Your task to perform on an android device: Go to internet settings Image 0: 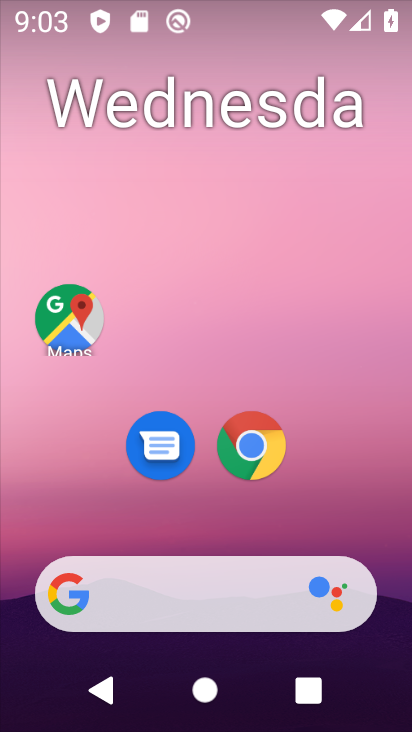
Step 0: drag from (225, 419) to (314, 41)
Your task to perform on an android device: Go to internet settings Image 1: 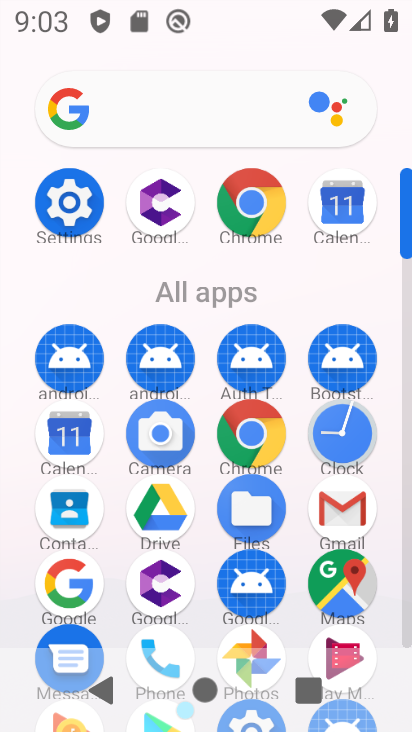
Step 1: click (79, 196)
Your task to perform on an android device: Go to internet settings Image 2: 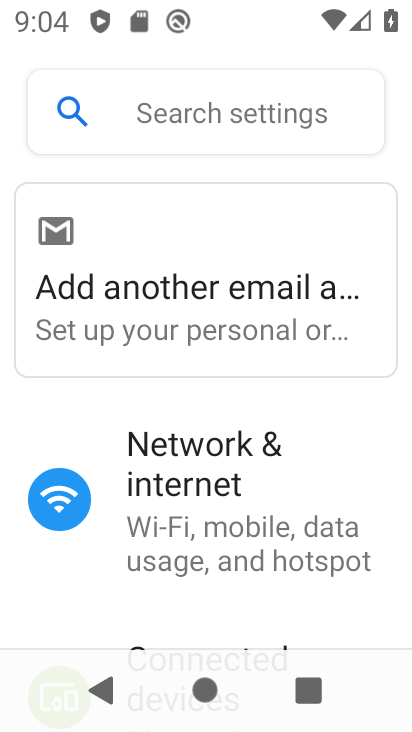
Step 2: task complete